Your task to perform on an android device: search for starred emails in the gmail app Image 0: 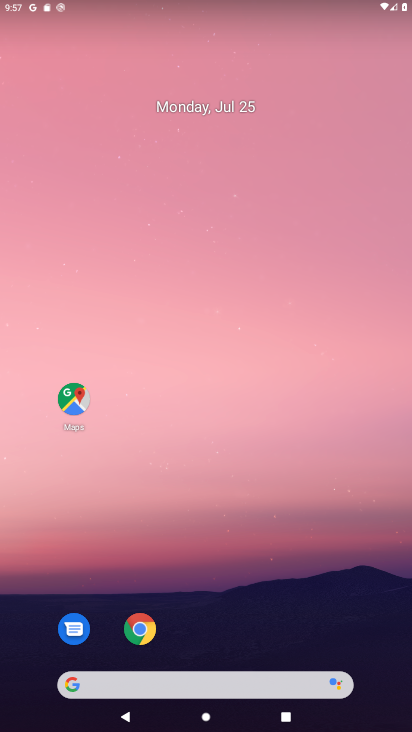
Step 0: drag from (188, 290) to (199, 97)
Your task to perform on an android device: search for starred emails in the gmail app Image 1: 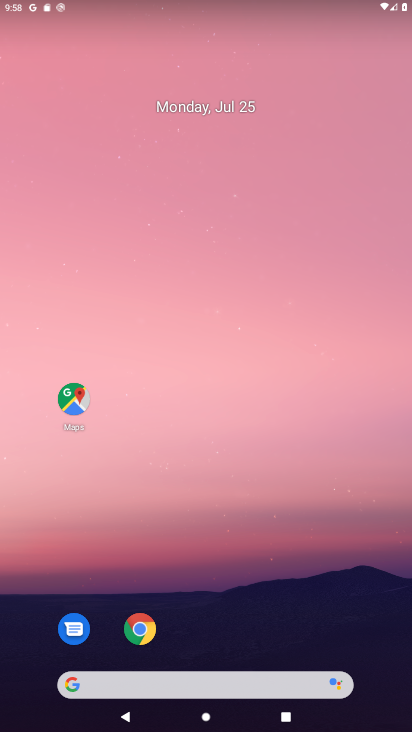
Step 1: drag from (208, 617) to (397, 12)
Your task to perform on an android device: search for starred emails in the gmail app Image 2: 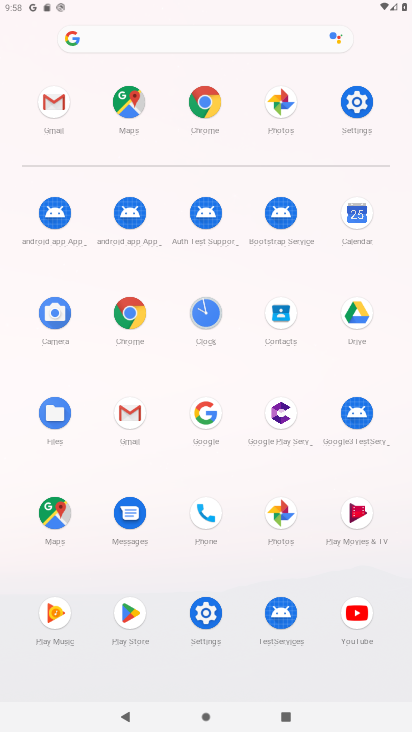
Step 2: click (43, 155)
Your task to perform on an android device: search for starred emails in the gmail app Image 3: 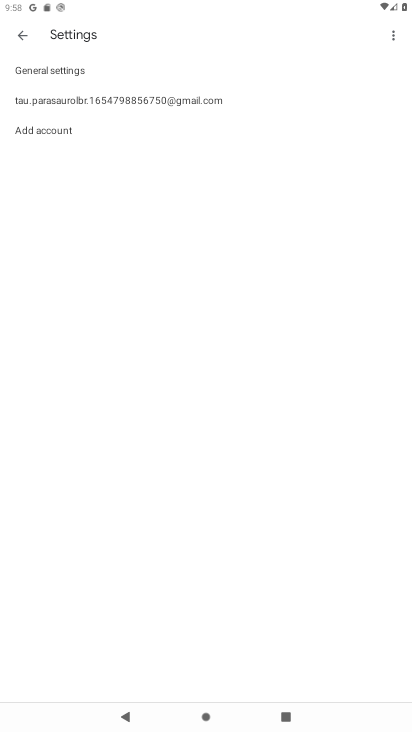
Step 3: click (25, 32)
Your task to perform on an android device: search for starred emails in the gmail app Image 4: 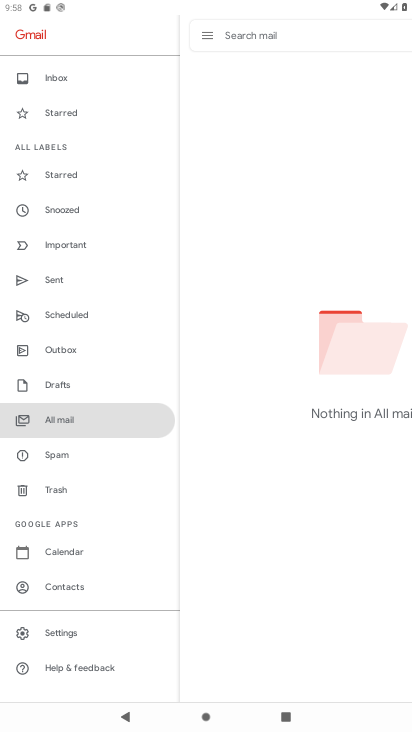
Step 4: click (87, 183)
Your task to perform on an android device: search for starred emails in the gmail app Image 5: 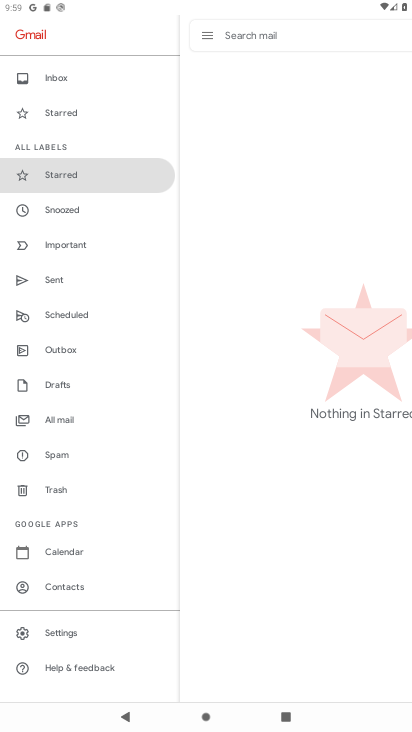
Step 5: task complete